Your task to perform on an android device: set the timer Image 0: 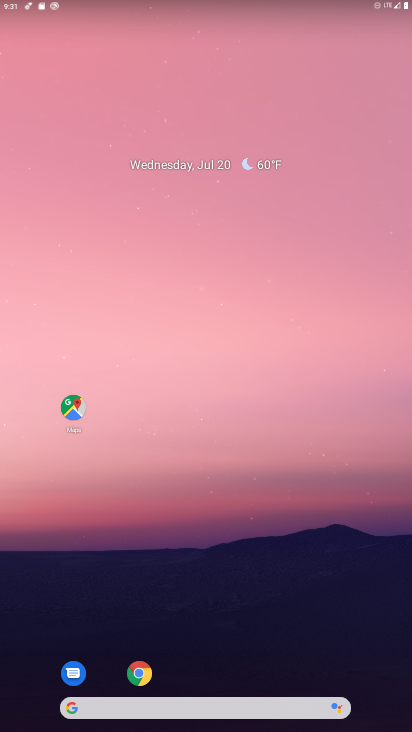
Step 0: drag from (203, 528) to (225, 11)
Your task to perform on an android device: set the timer Image 1: 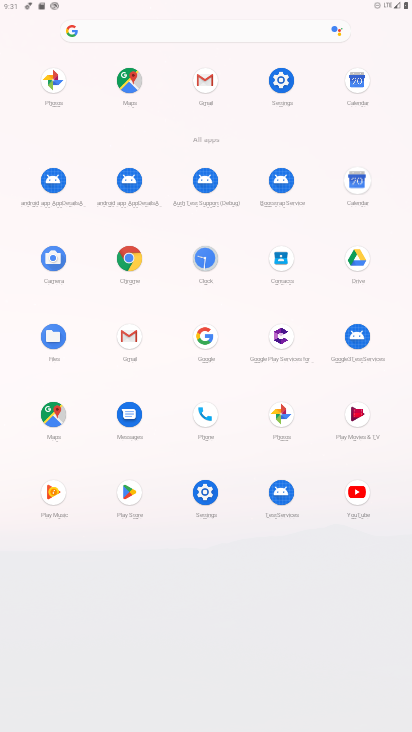
Step 1: click (209, 272)
Your task to perform on an android device: set the timer Image 2: 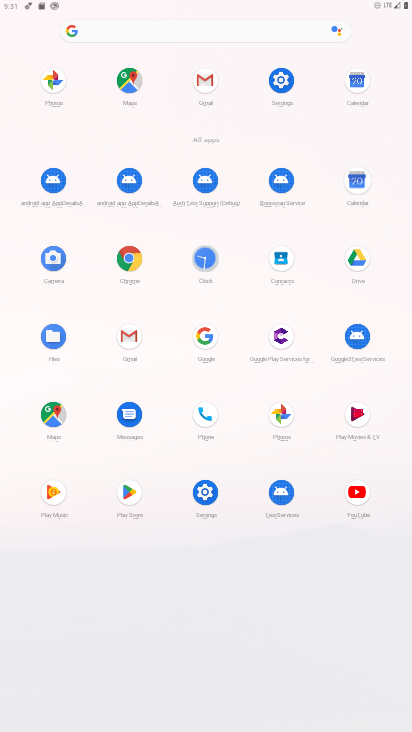
Step 2: click (207, 268)
Your task to perform on an android device: set the timer Image 3: 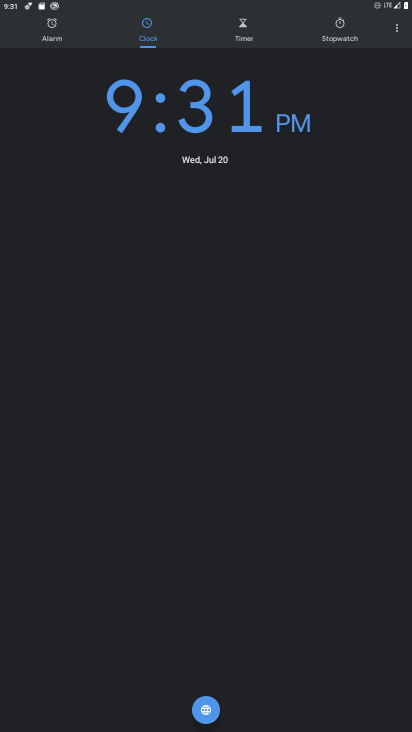
Step 3: click (243, 39)
Your task to perform on an android device: set the timer Image 4: 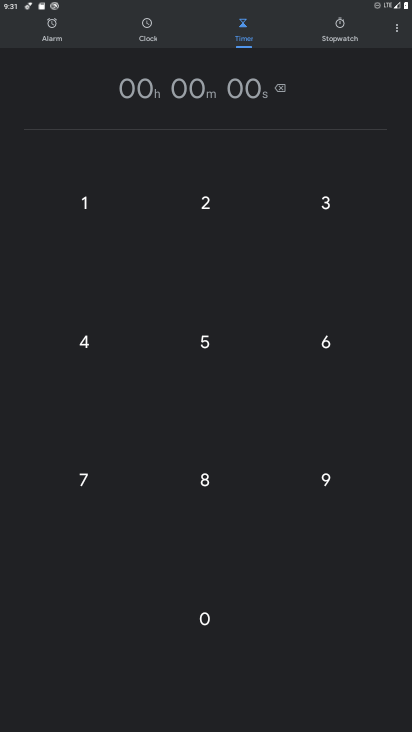
Step 4: click (201, 201)
Your task to perform on an android device: set the timer Image 5: 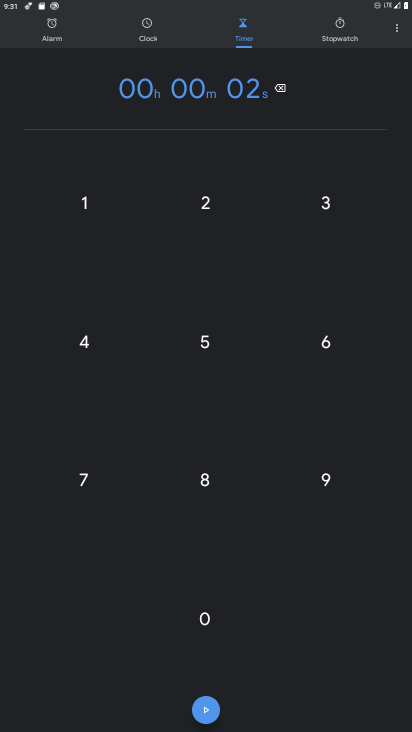
Step 5: click (202, 621)
Your task to perform on an android device: set the timer Image 6: 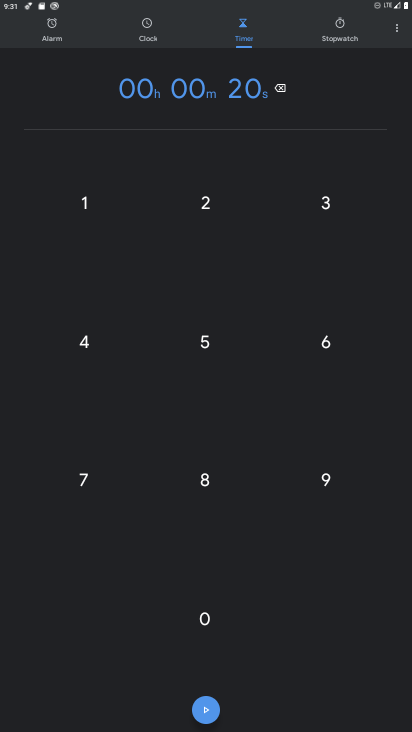
Step 6: click (202, 621)
Your task to perform on an android device: set the timer Image 7: 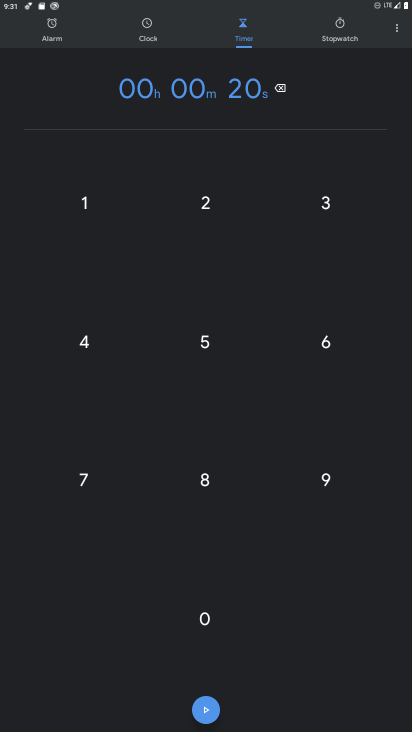
Step 7: click (202, 621)
Your task to perform on an android device: set the timer Image 8: 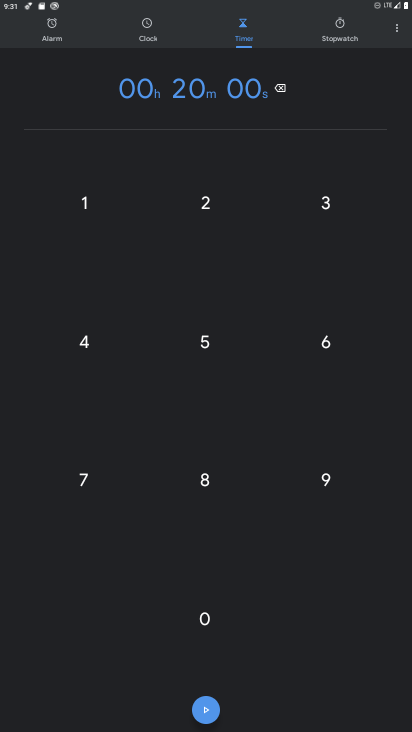
Step 8: click (198, 711)
Your task to perform on an android device: set the timer Image 9: 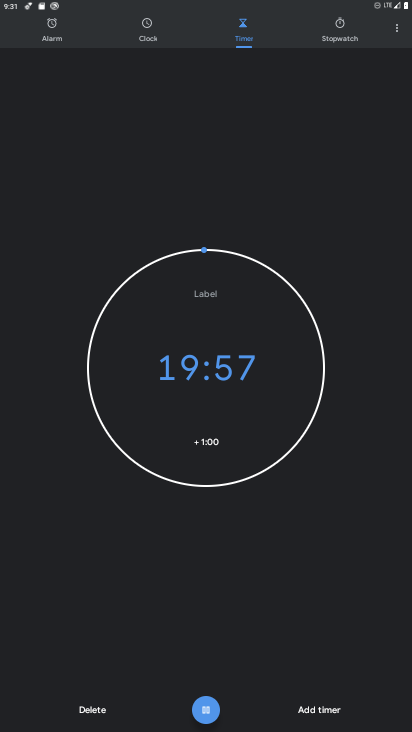
Step 9: click (311, 710)
Your task to perform on an android device: set the timer Image 10: 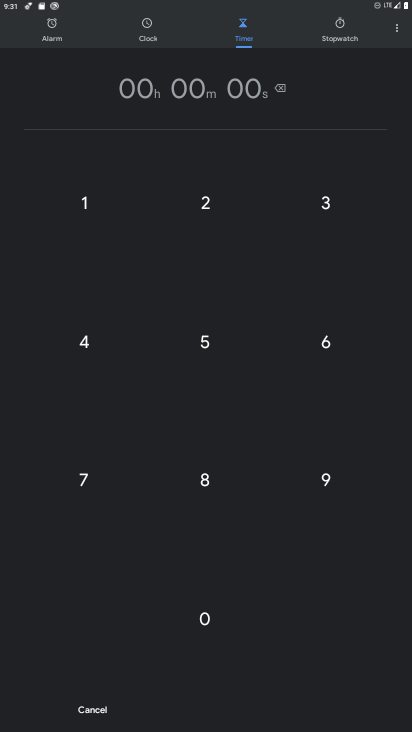
Step 10: task complete